Your task to perform on an android device: Go to display settings Image 0: 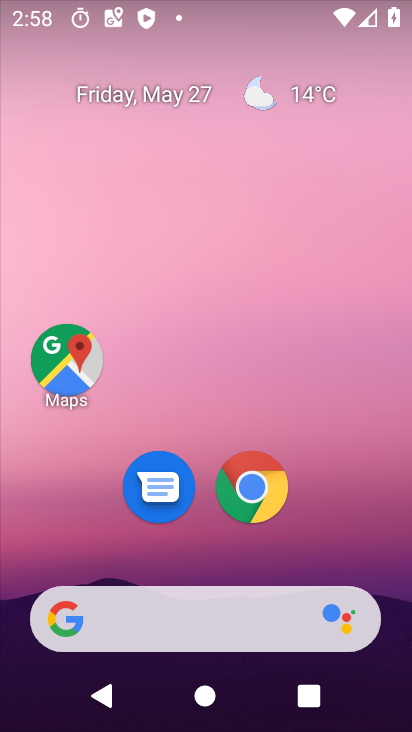
Step 0: drag from (324, 509) to (354, 184)
Your task to perform on an android device: Go to display settings Image 1: 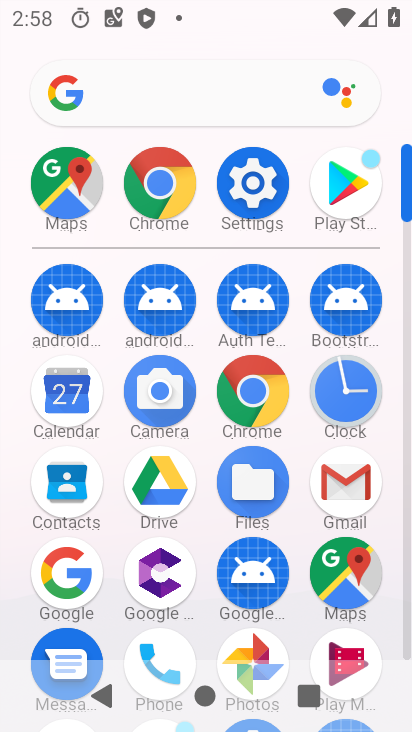
Step 1: click (244, 192)
Your task to perform on an android device: Go to display settings Image 2: 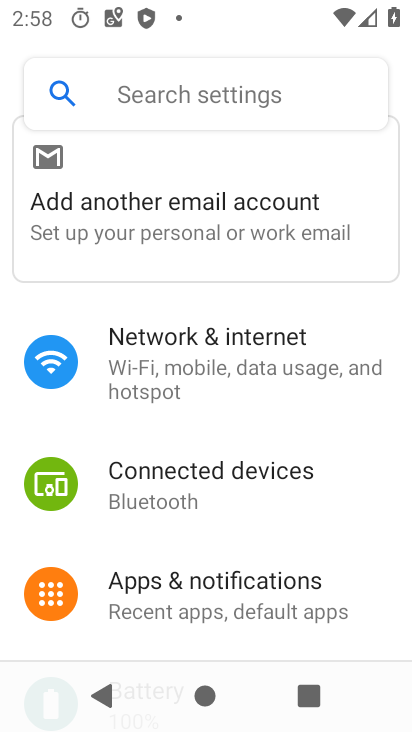
Step 2: drag from (232, 511) to (320, 62)
Your task to perform on an android device: Go to display settings Image 3: 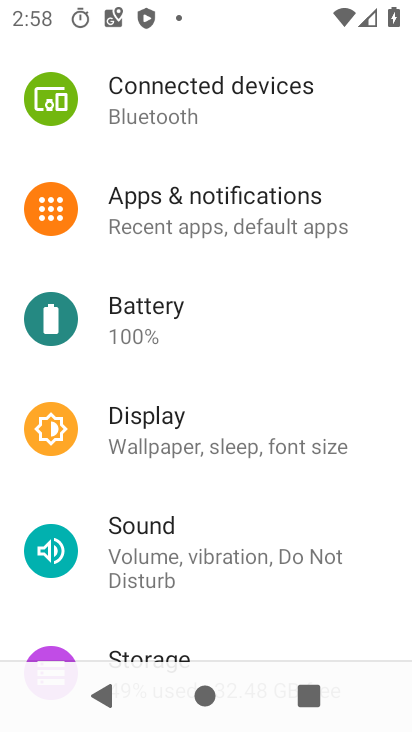
Step 3: click (208, 432)
Your task to perform on an android device: Go to display settings Image 4: 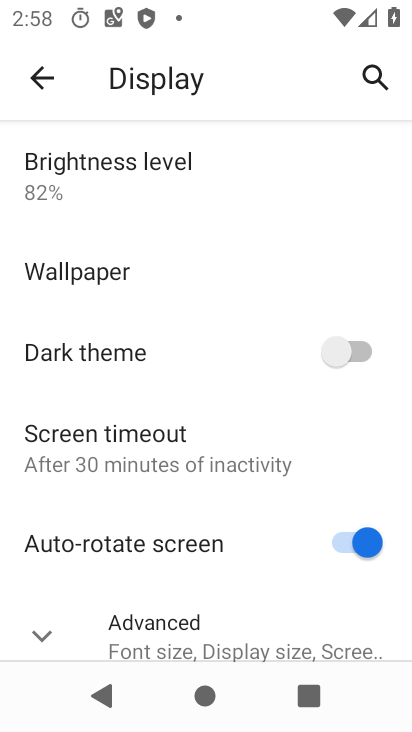
Step 4: task complete